Your task to perform on an android device: Open Chrome and go to the settings page Image 0: 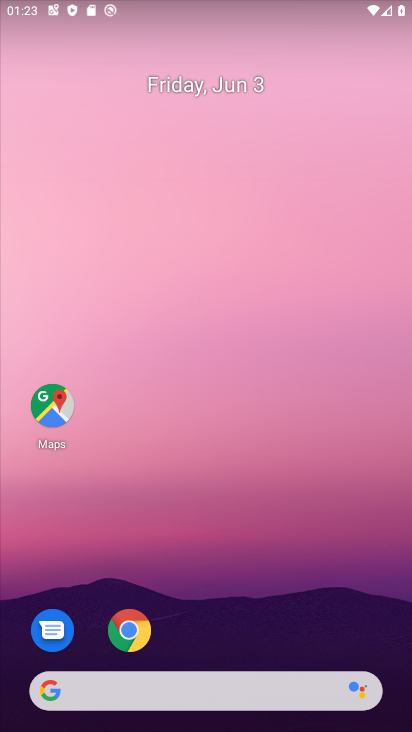
Step 0: drag from (257, 625) to (195, 247)
Your task to perform on an android device: Open Chrome and go to the settings page Image 1: 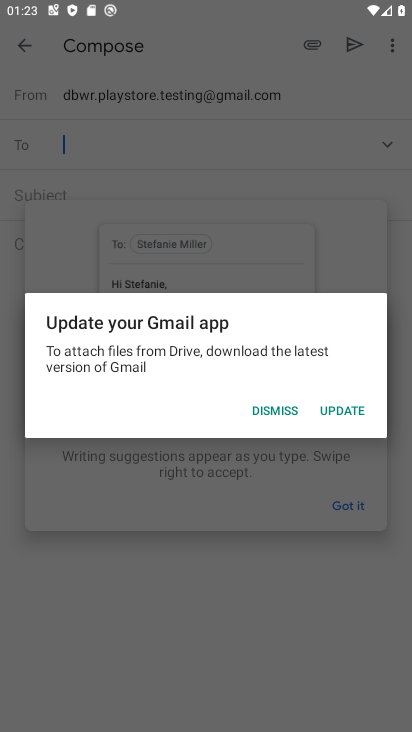
Step 1: click (210, 134)
Your task to perform on an android device: Open Chrome and go to the settings page Image 2: 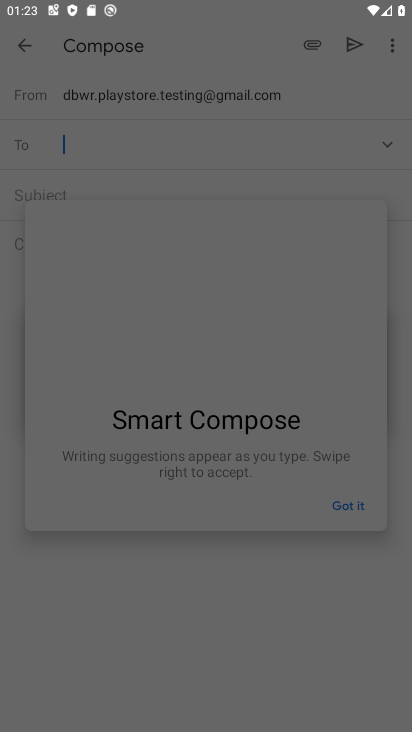
Step 2: press home button
Your task to perform on an android device: Open Chrome and go to the settings page Image 3: 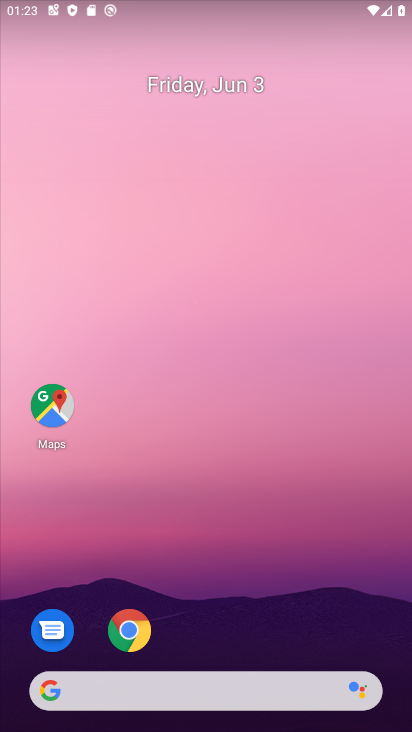
Step 3: click (140, 636)
Your task to perform on an android device: Open Chrome and go to the settings page Image 4: 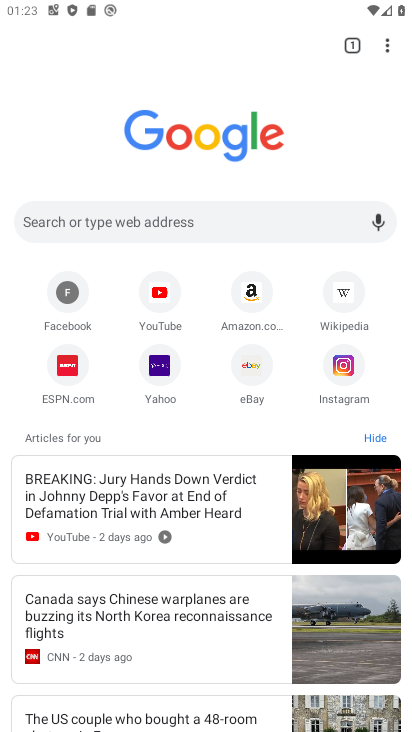
Step 4: click (392, 46)
Your task to perform on an android device: Open Chrome and go to the settings page Image 5: 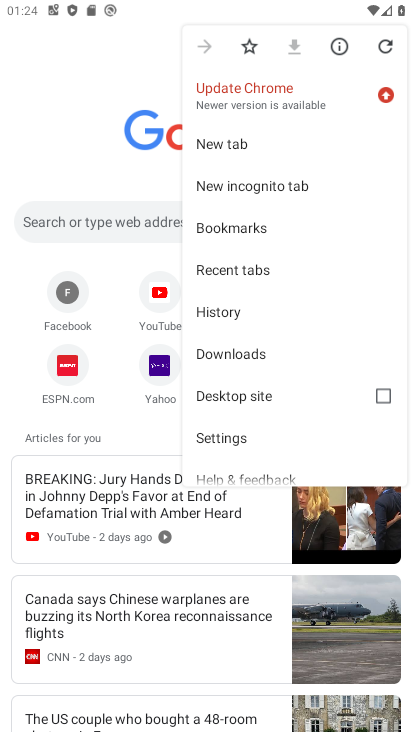
Step 5: click (279, 434)
Your task to perform on an android device: Open Chrome and go to the settings page Image 6: 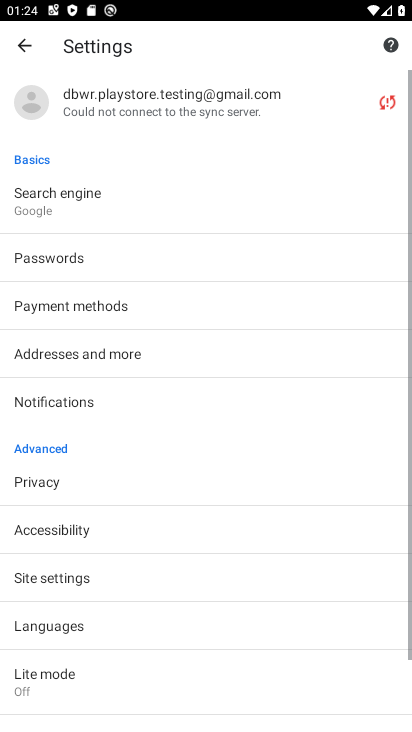
Step 6: task complete